Your task to perform on an android device: check android version Image 0: 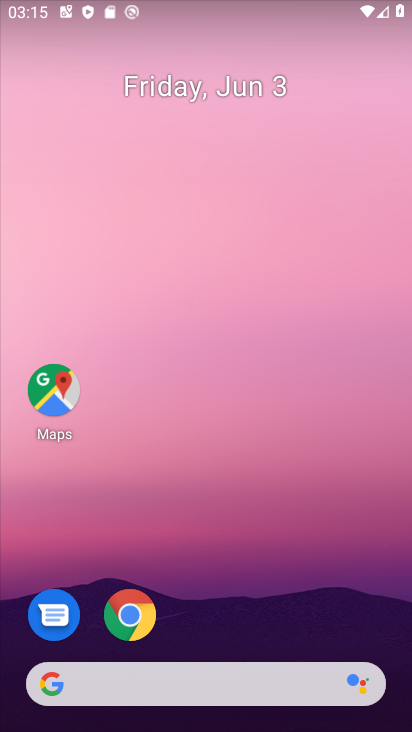
Step 0: drag from (257, 608) to (115, 93)
Your task to perform on an android device: check android version Image 1: 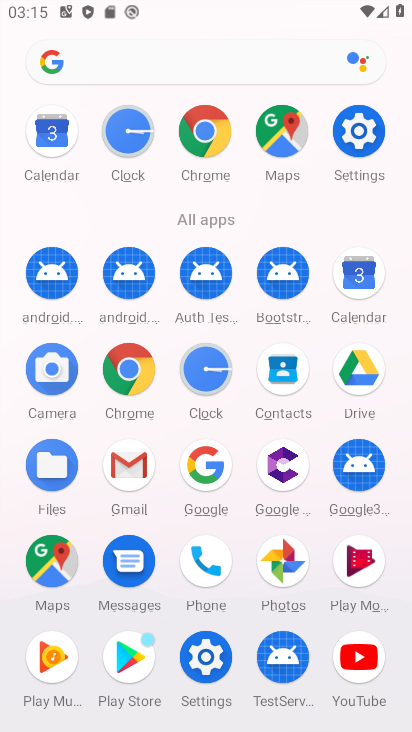
Step 1: click (362, 127)
Your task to perform on an android device: check android version Image 2: 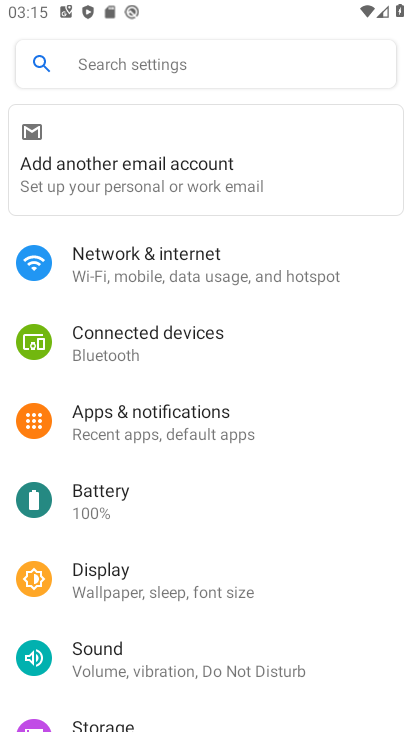
Step 2: drag from (328, 720) to (205, 135)
Your task to perform on an android device: check android version Image 3: 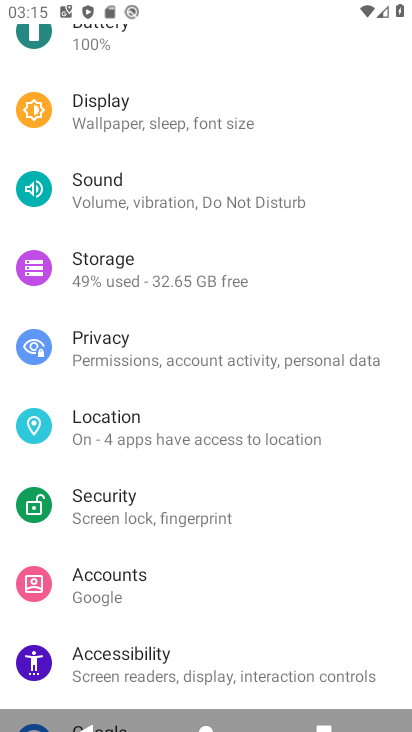
Step 3: drag from (268, 630) to (185, 218)
Your task to perform on an android device: check android version Image 4: 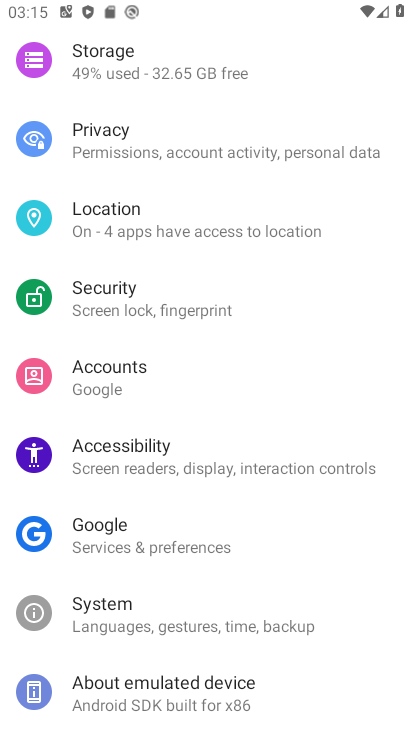
Step 4: click (273, 686)
Your task to perform on an android device: check android version Image 5: 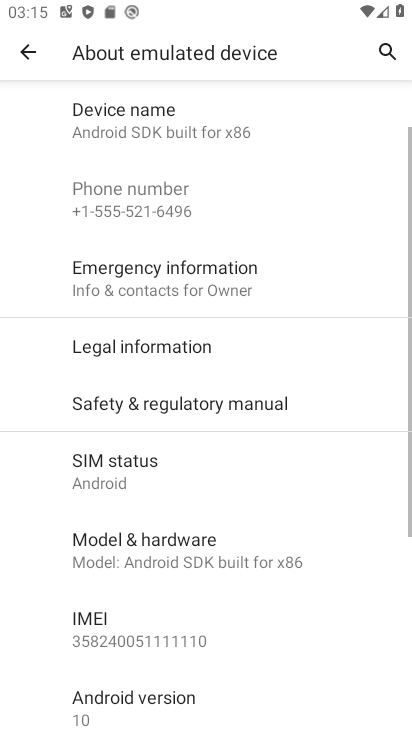
Step 5: drag from (273, 686) to (233, 407)
Your task to perform on an android device: check android version Image 6: 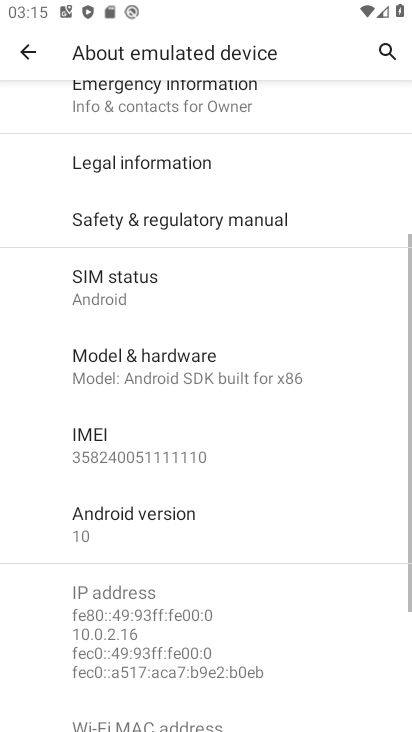
Step 6: click (242, 508)
Your task to perform on an android device: check android version Image 7: 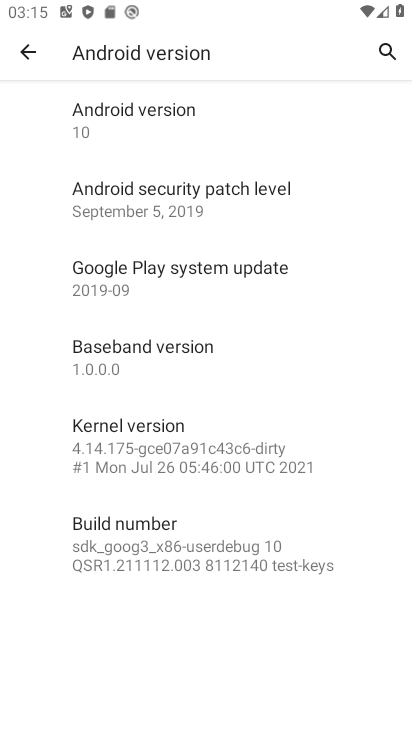
Step 7: click (272, 125)
Your task to perform on an android device: check android version Image 8: 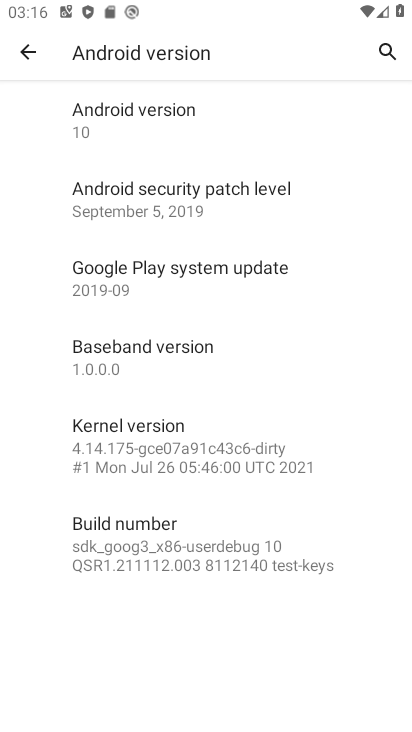
Step 8: task complete